Your task to perform on an android device: Open network settings Image 0: 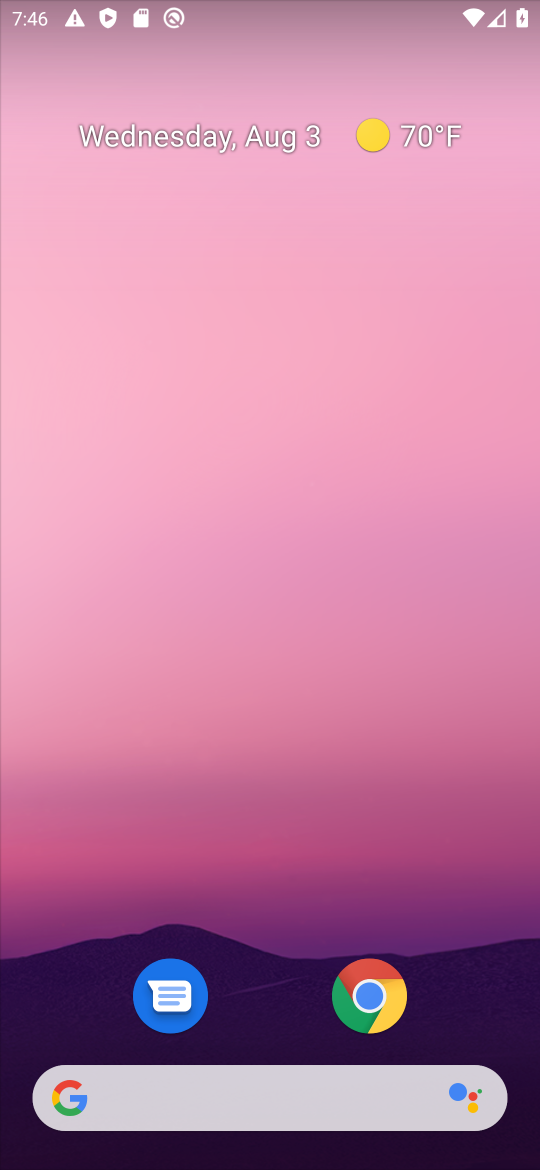
Step 0: drag from (286, 885) to (272, 0)
Your task to perform on an android device: Open network settings Image 1: 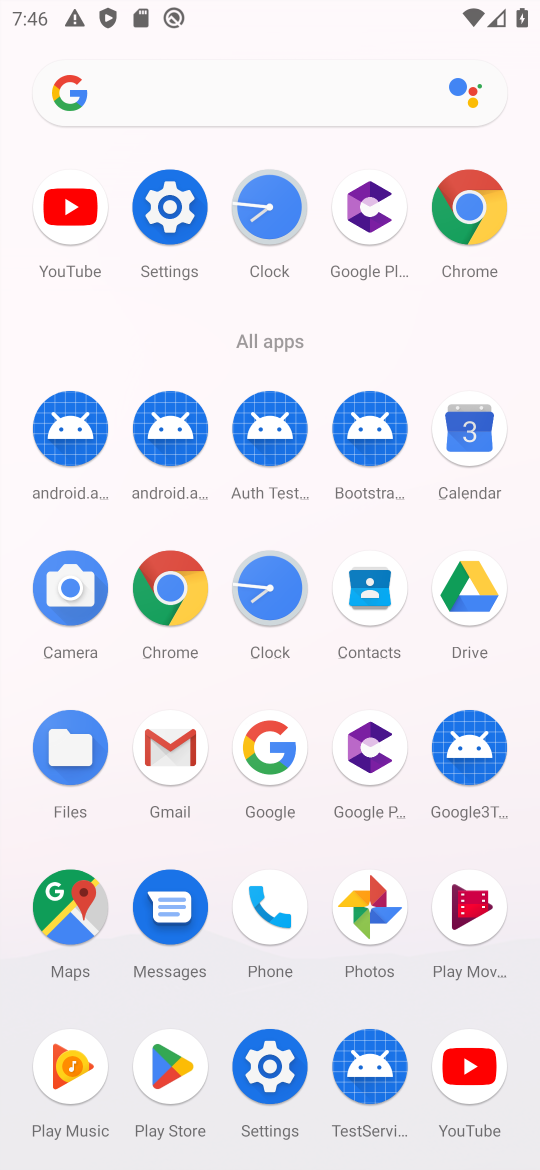
Step 1: click (163, 216)
Your task to perform on an android device: Open network settings Image 2: 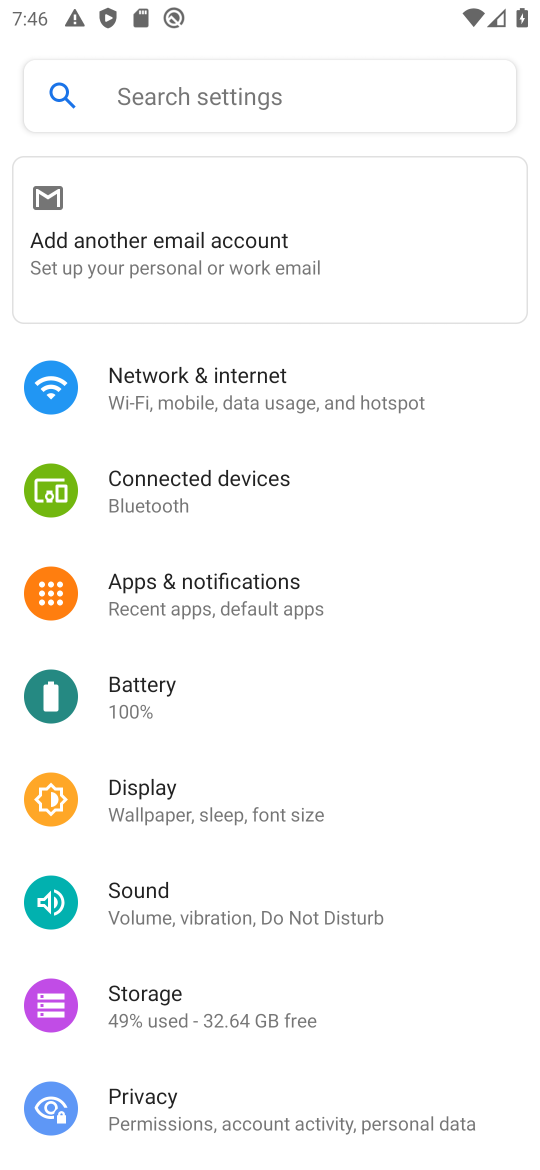
Step 2: click (254, 404)
Your task to perform on an android device: Open network settings Image 3: 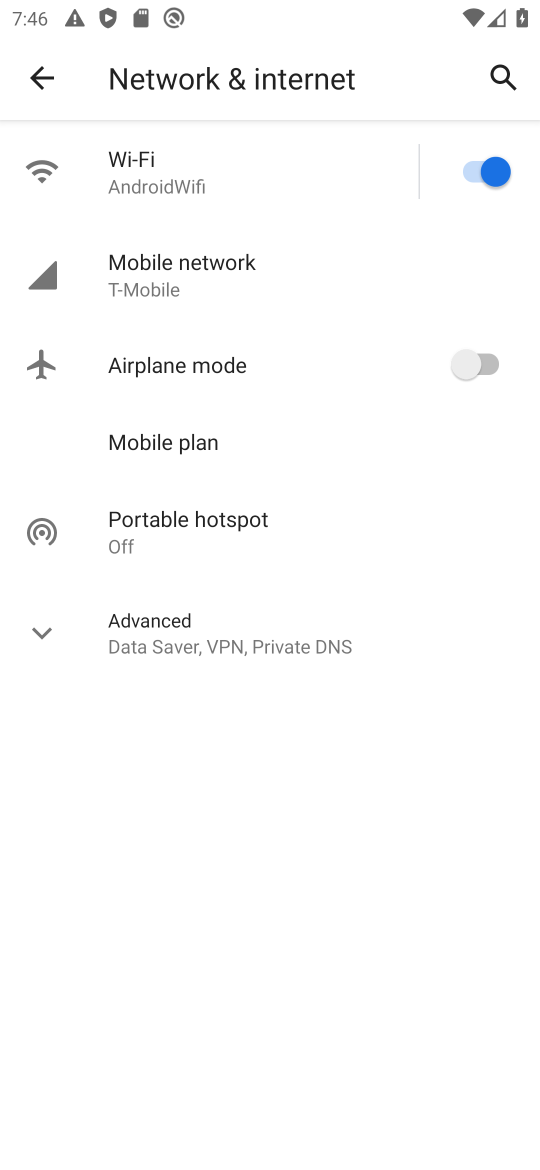
Step 3: task complete